Your task to perform on an android device: uninstall "Pandora - Music & Podcasts" Image 0: 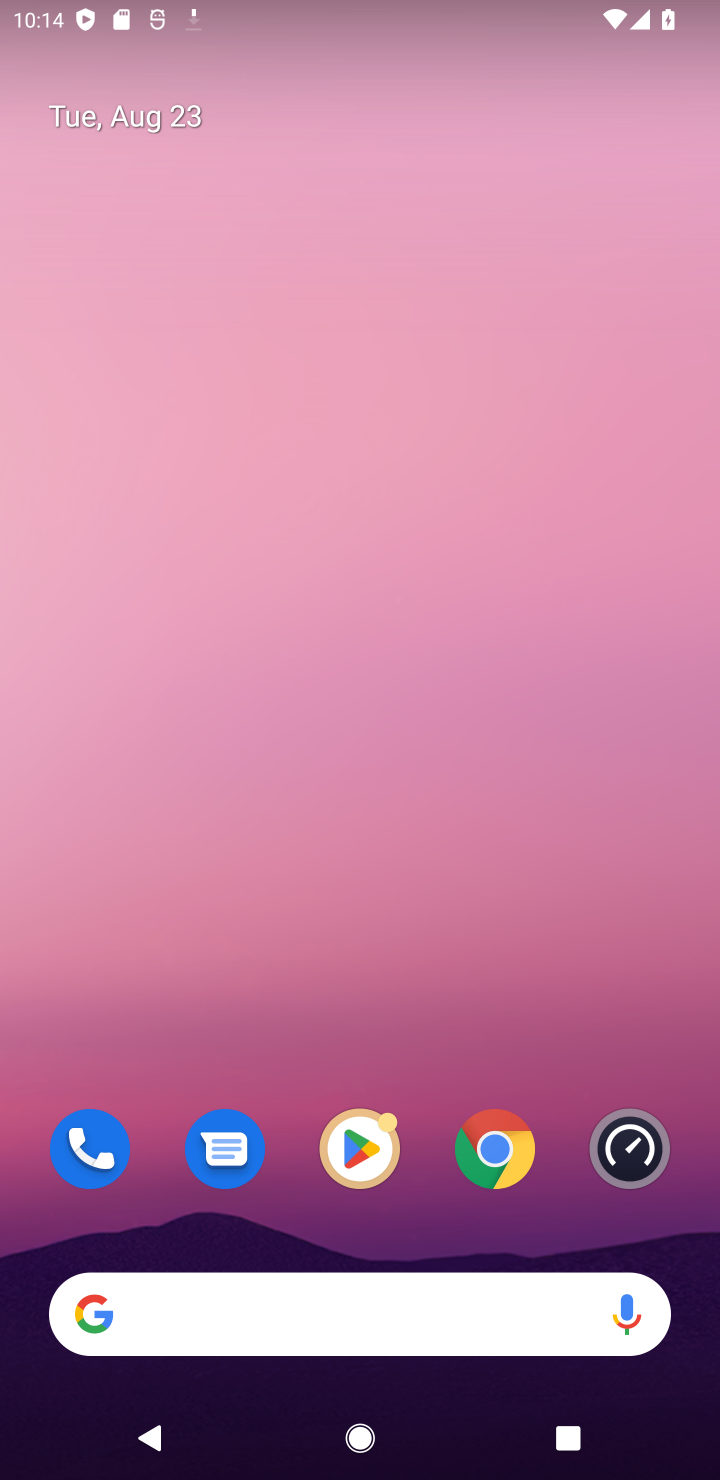
Step 0: click (352, 1165)
Your task to perform on an android device: uninstall "Pandora - Music & Podcasts" Image 1: 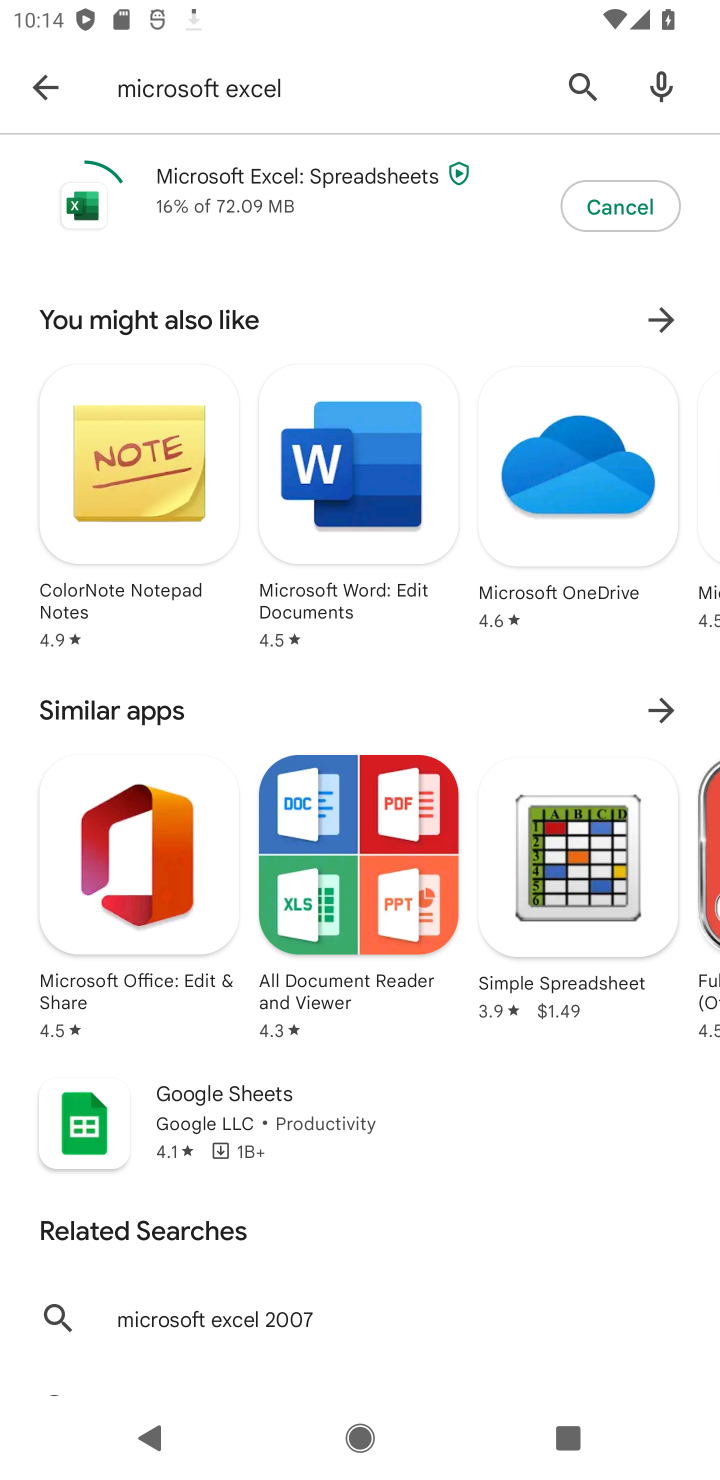
Step 1: click (541, 82)
Your task to perform on an android device: uninstall "Pandora - Music & Podcasts" Image 2: 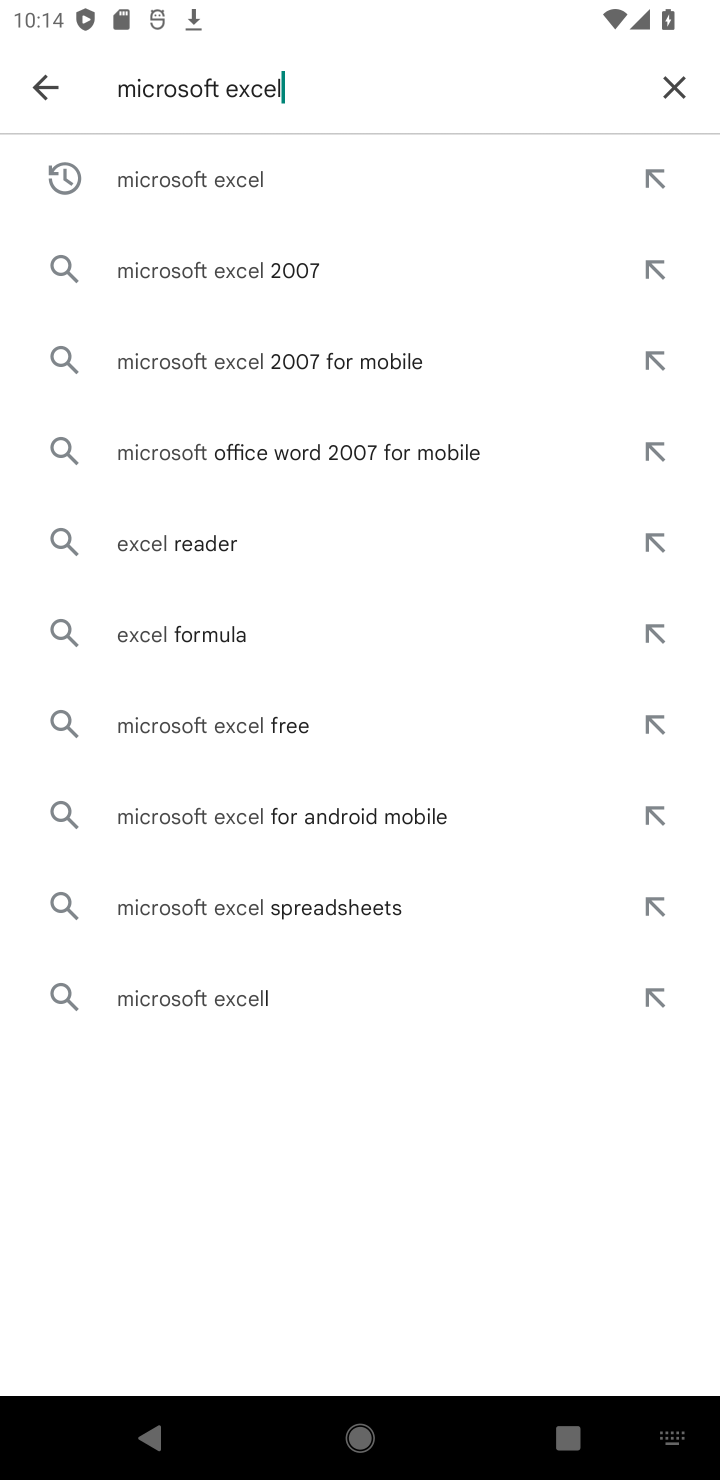
Step 2: click (669, 84)
Your task to perform on an android device: uninstall "Pandora - Music & Podcasts" Image 3: 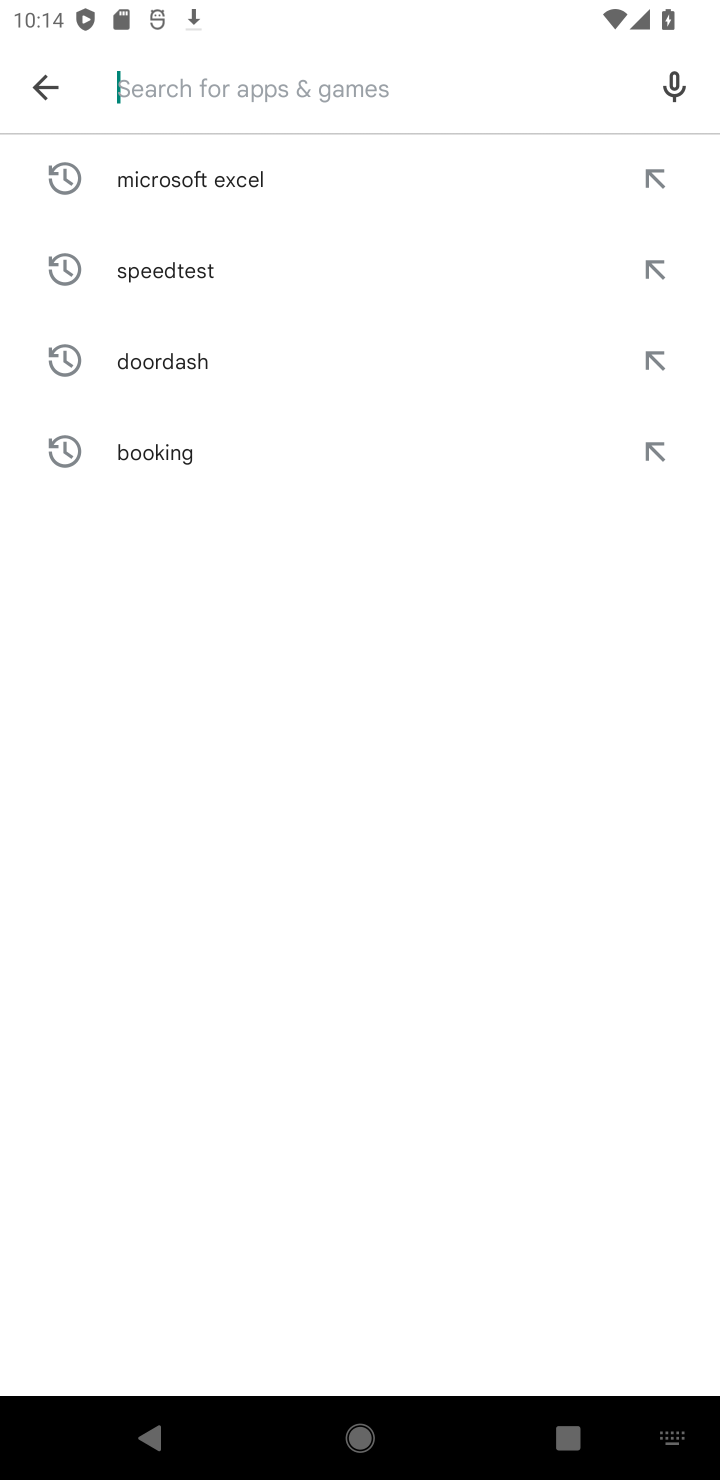
Step 3: type "pandora"
Your task to perform on an android device: uninstall "Pandora - Music & Podcasts" Image 4: 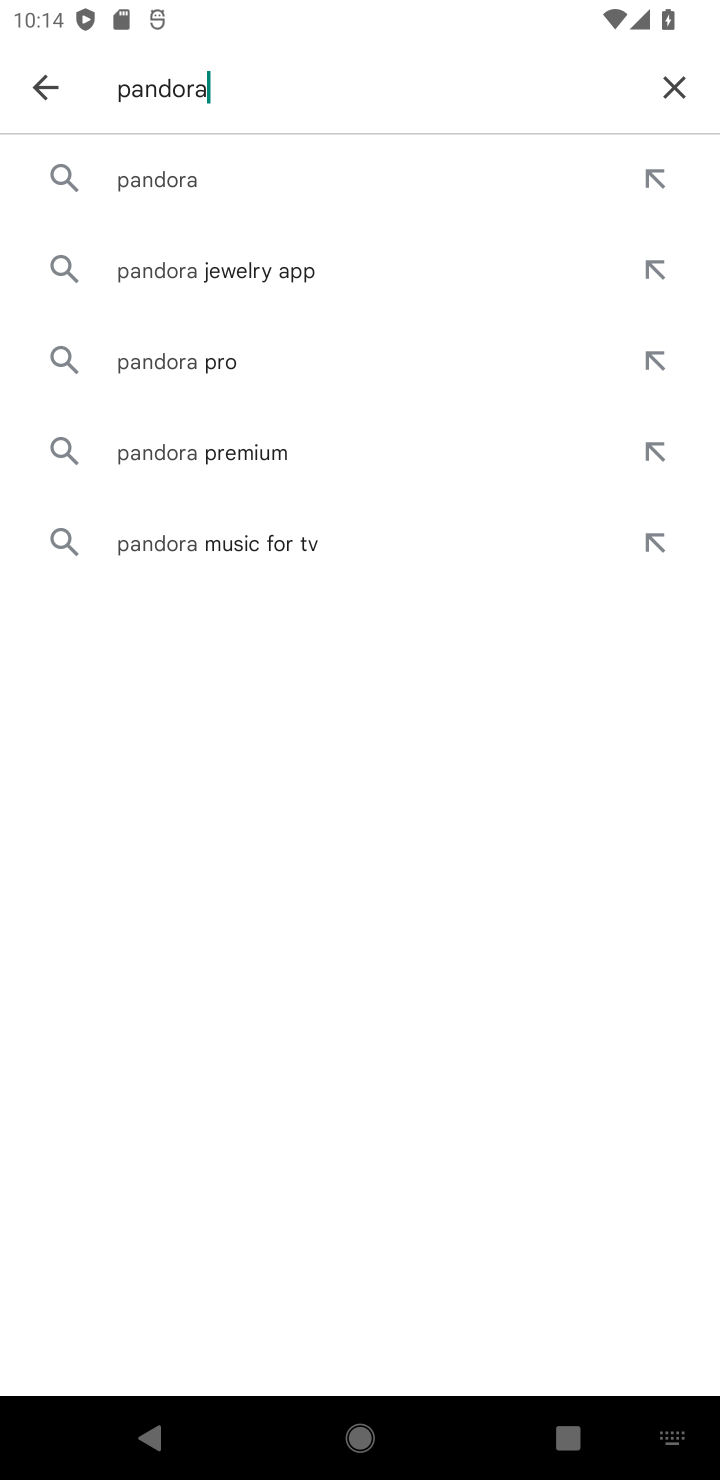
Step 4: click (362, 199)
Your task to perform on an android device: uninstall "Pandora - Music & Podcasts" Image 5: 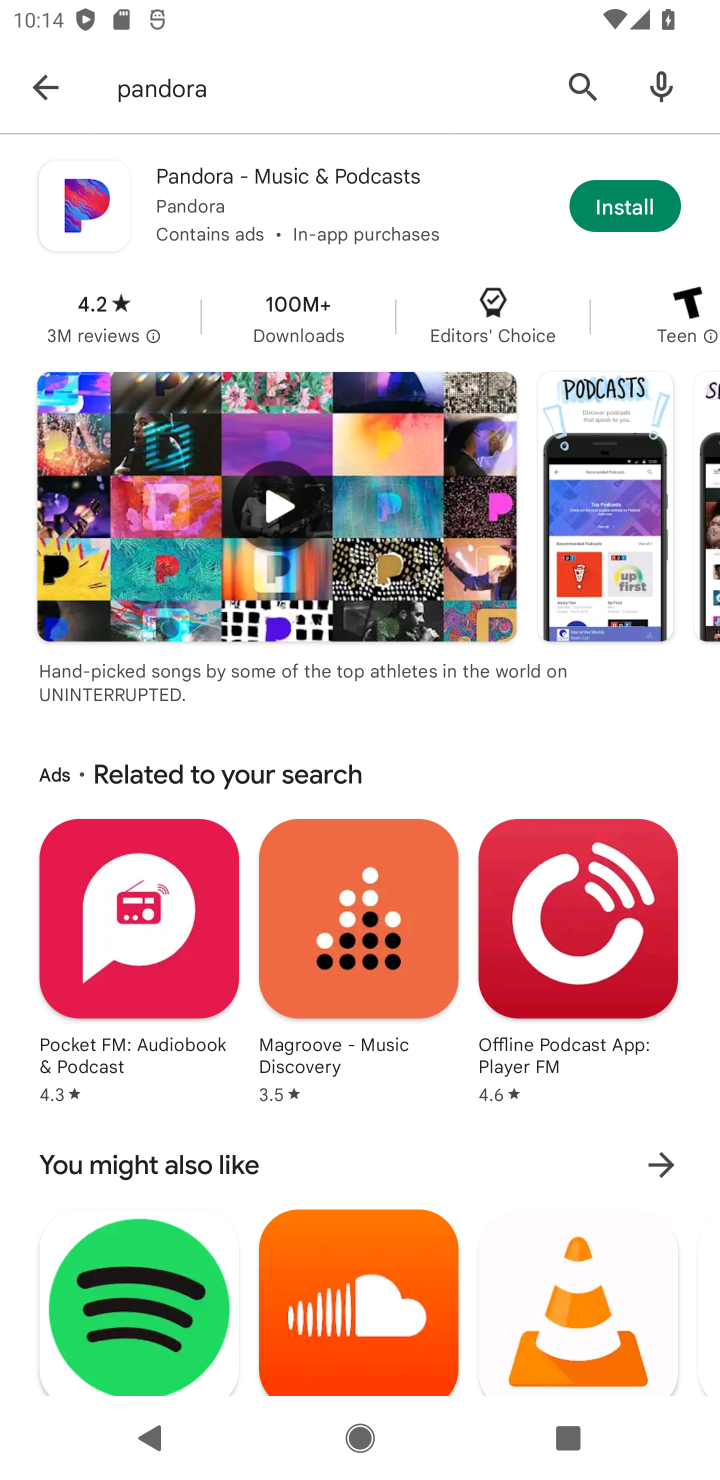
Step 5: click (607, 219)
Your task to perform on an android device: uninstall "Pandora - Music & Podcasts" Image 6: 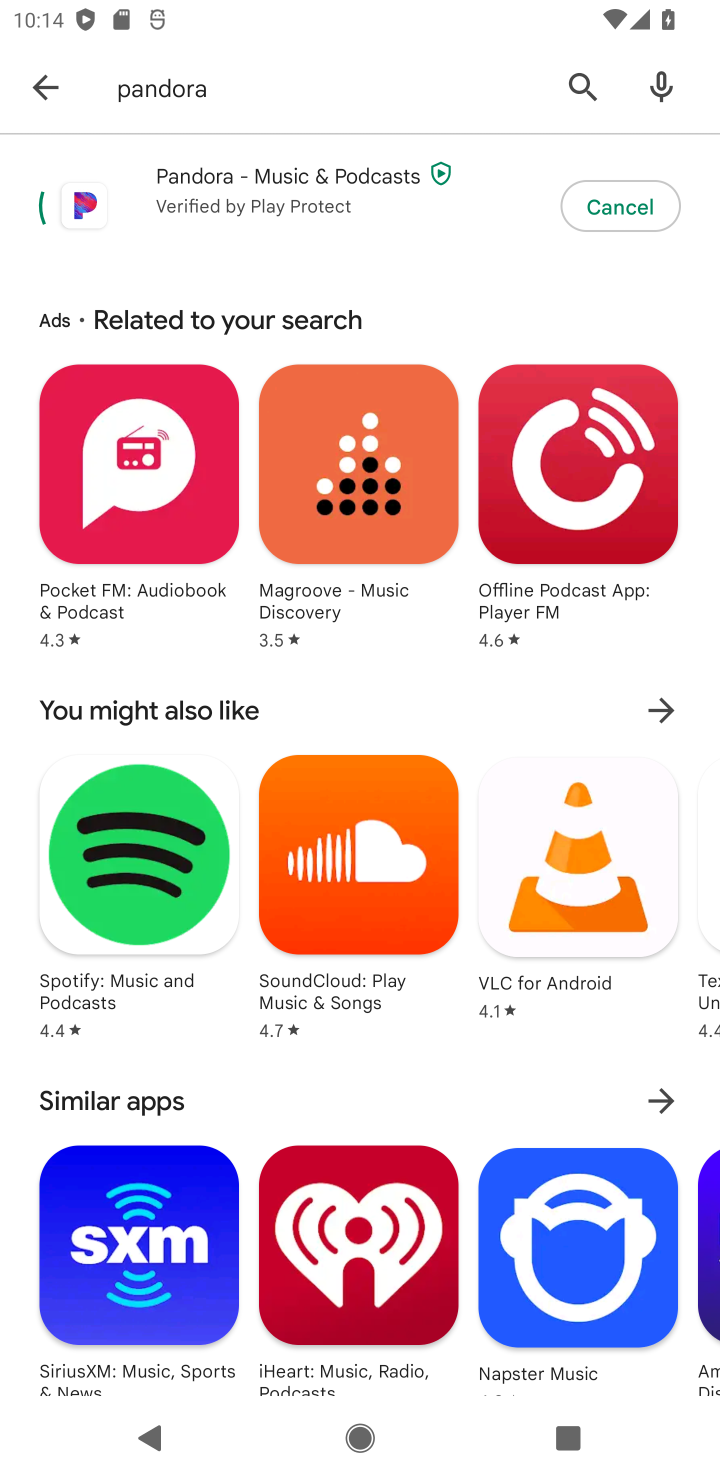
Step 6: task complete